Your task to perform on an android device: Open settings on Google Maps Image 0: 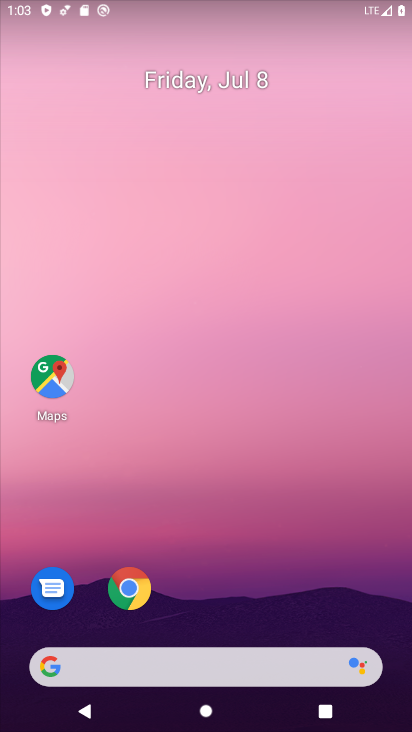
Step 0: drag from (230, 615) to (215, 13)
Your task to perform on an android device: Open settings on Google Maps Image 1: 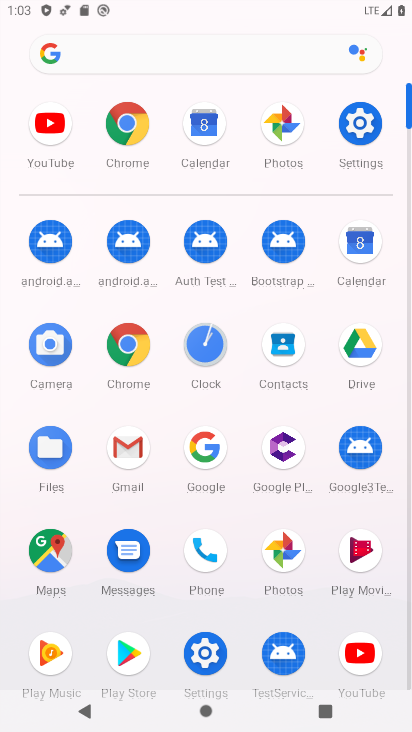
Step 1: click (218, 647)
Your task to perform on an android device: Open settings on Google Maps Image 2: 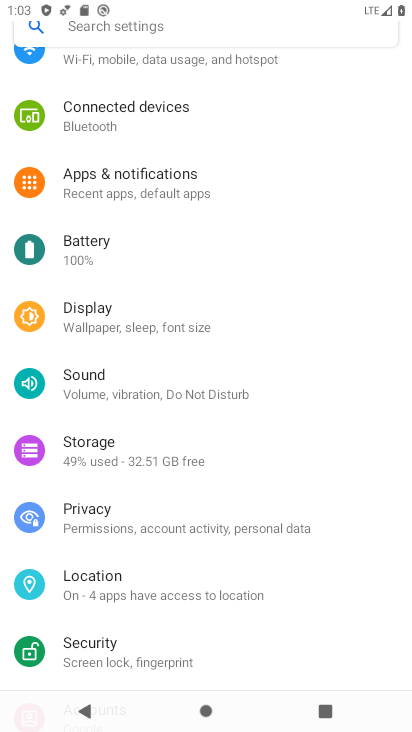
Step 2: press home button
Your task to perform on an android device: Open settings on Google Maps Image 3: 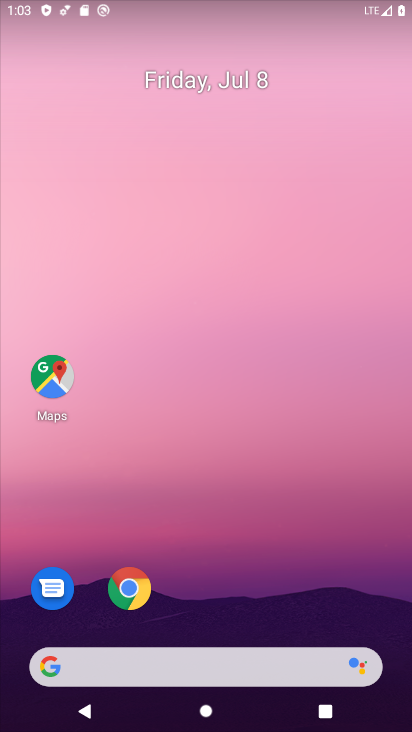
Step 3: click (48, 367)
Your task to perform on an android device: Open settings on Google Maps Image 4: 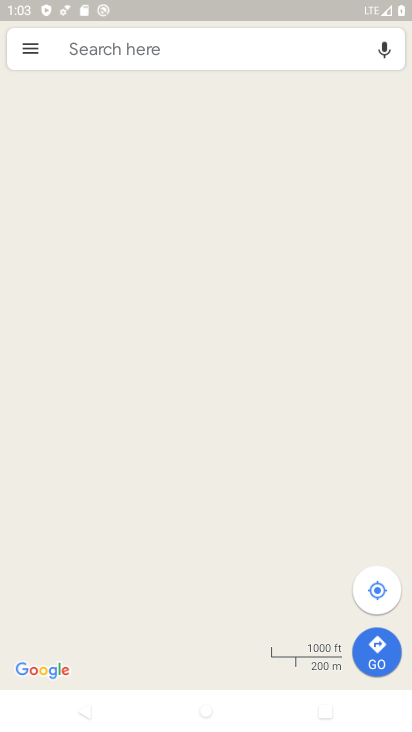
Step 4: click (21, 42)
Your task to perform on an android device: Open settings on Google Maps Image 5: 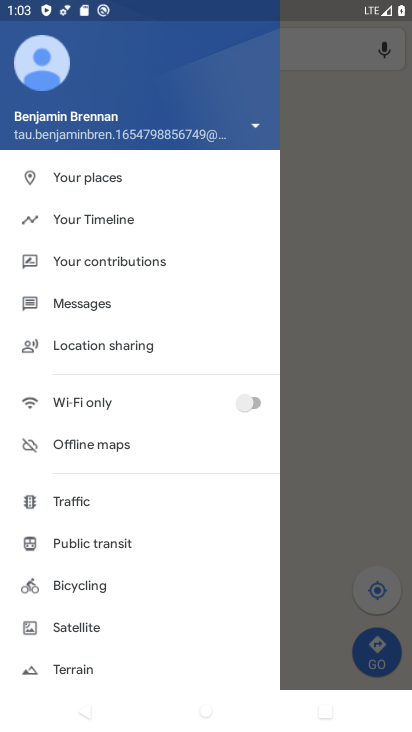
Step 5: drag from (124, 605) to (163, 205)
Your task to perform on an android device: Open settings on Google Maps Image 6: 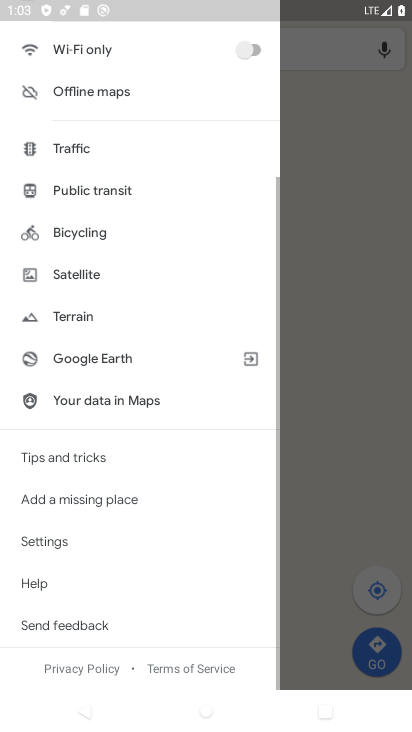
Step 6: click (60, 545)
Your task to perform on an android device: Open settings on Google Maps Image 7: 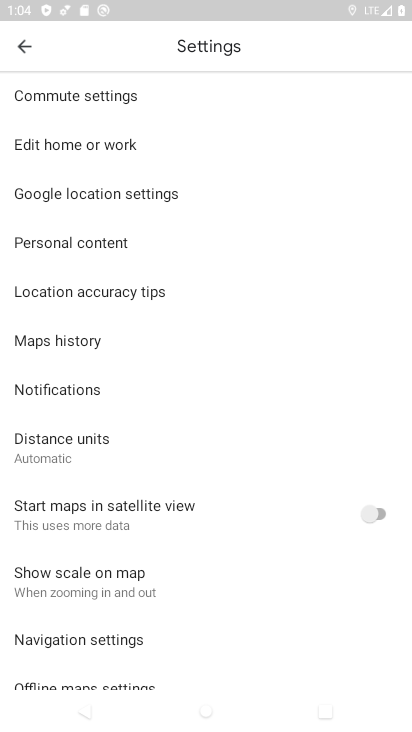
Step 7: task complete